Your task to perform on an android device: see tabs open on other devices in the chrome app Image 0: 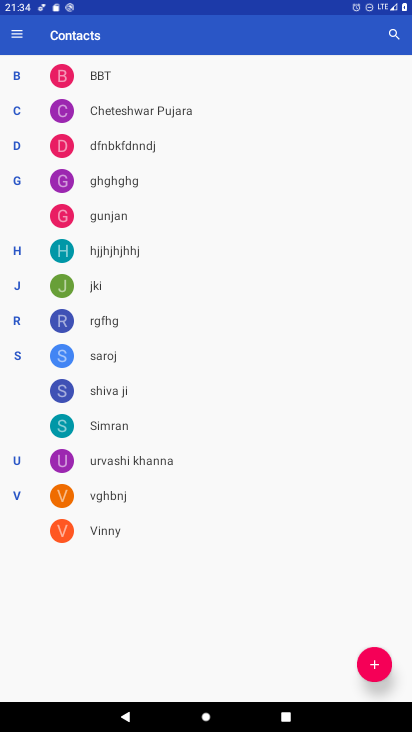
Step 0: press home button
Your task to perform on an android device: see tabs open on other devices in the chrome app Image 1: 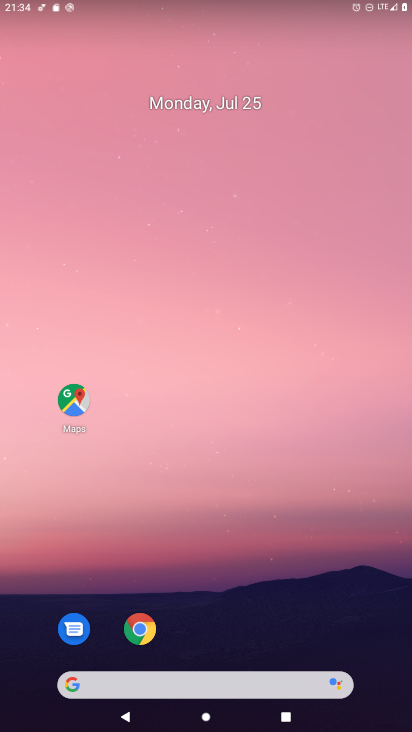
Step 1: click (140, 630)
Your task to perform on an android device: see tabs open on other devices in the chrome app Image 2: 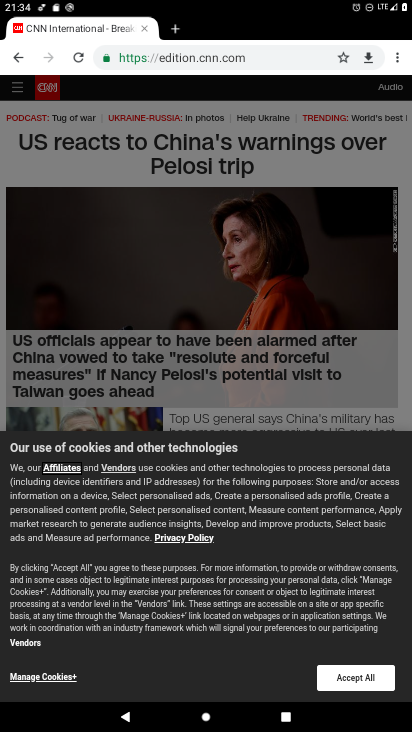
Step 2: click (398, 57)
Your task to perform on an android device: see tabs open on other devices in the chrome app Image 3: 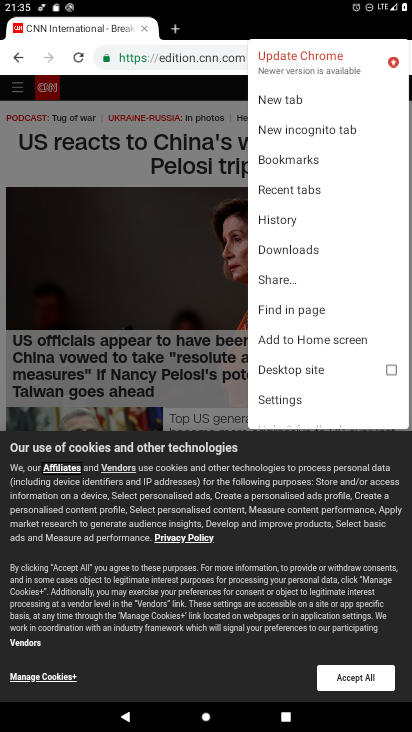
Step 3: click (304, 190)
Your task to perform on an android device: see tabs open on other devices in the chrome app Image 4: 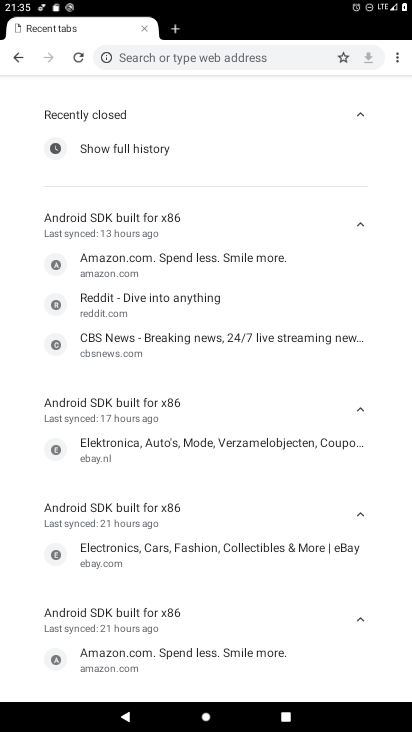
Step 4: task complete